Your task to perform on an android device: Open Reddit.com Image 0: 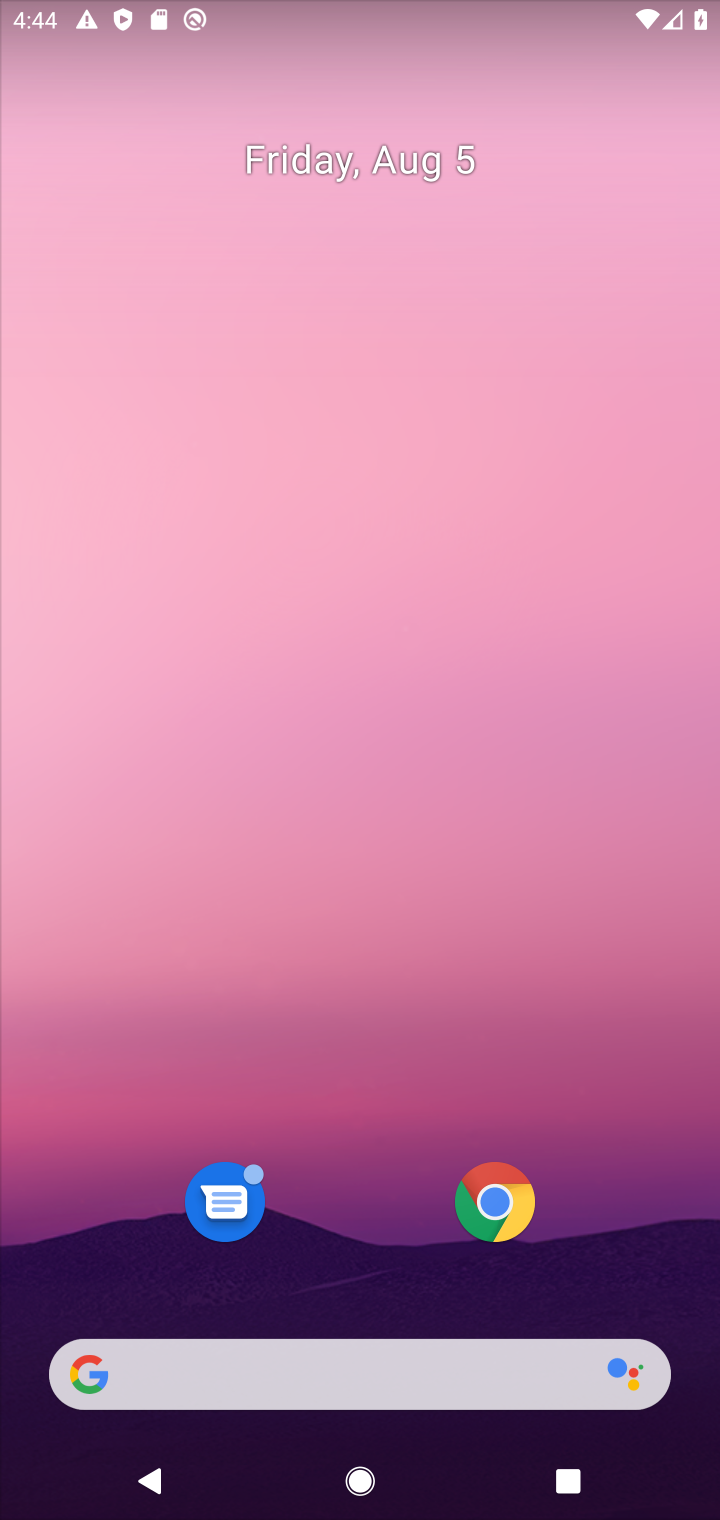
Step 0: click (501, 1203)
Your task to perform on an android device: Open Reddit.com Image 1: 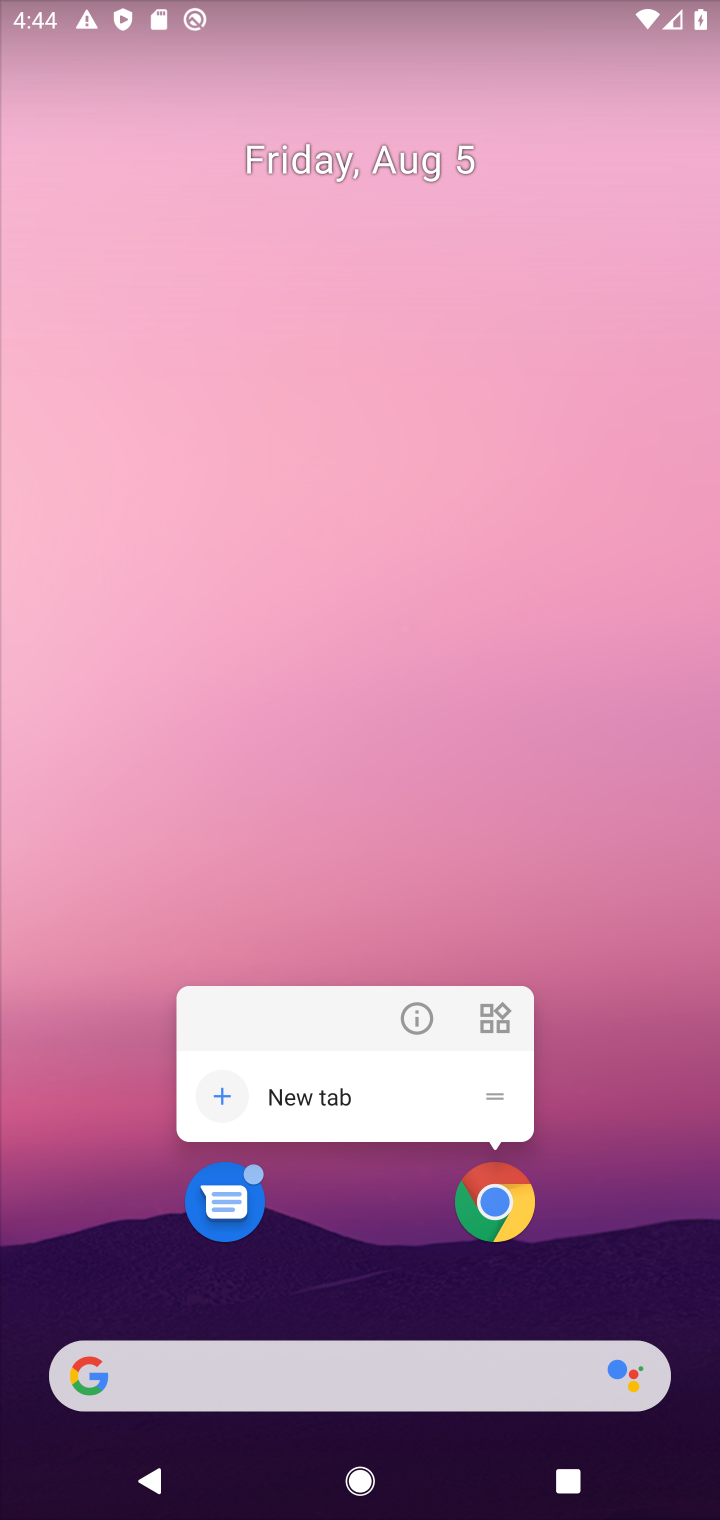
Step 1: click (501, 1203)
Your task to perform on an android device: Open Reddit.com Image 2: 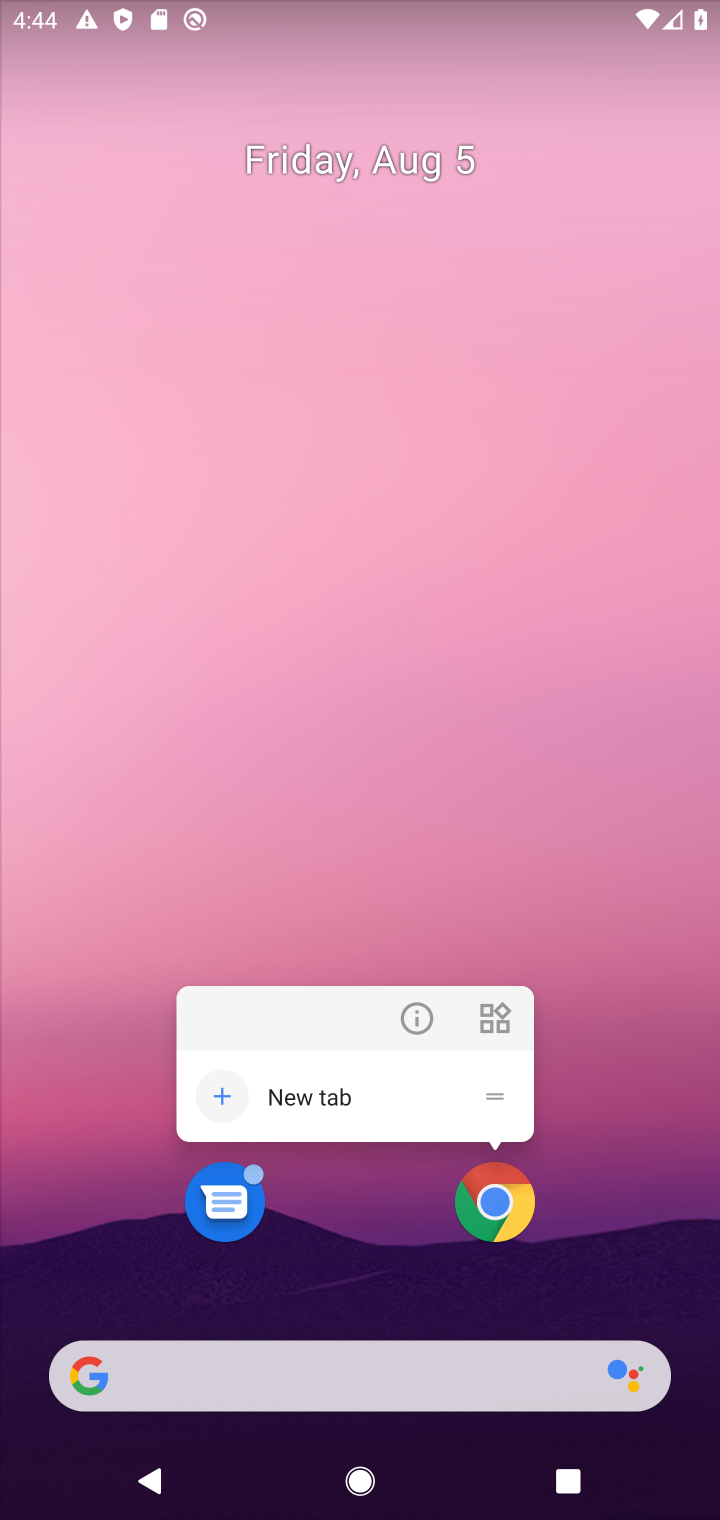
Step 2: click (501, 1203)
Your task to perform on an android device: Open Reddit.com Image 3: 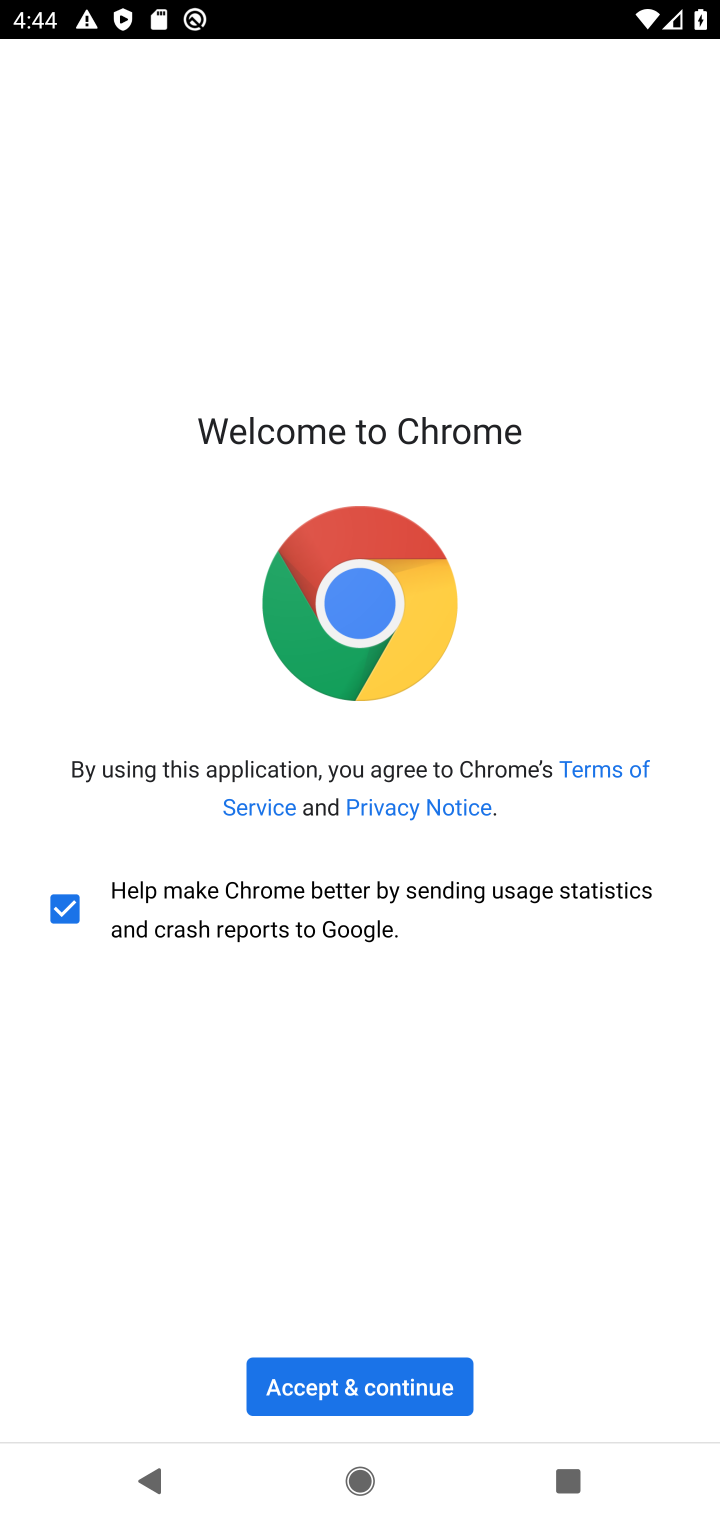
Step 3: click (387, 1387)
Your task to perform on an android device: Open Reddit.com Image 4: 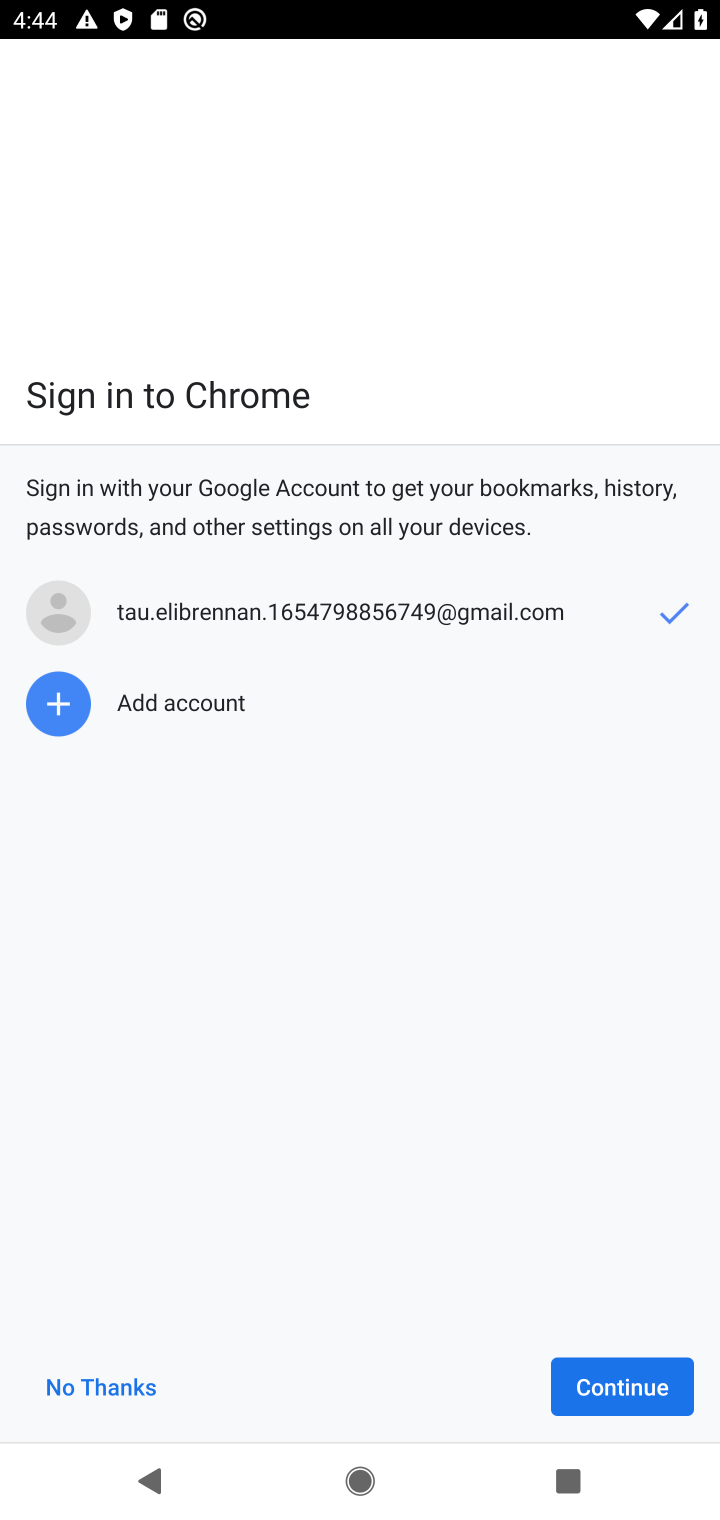
Step 4: click (591, 1378)
Your task to perform on an android device: Open Reddit.com Image 5: 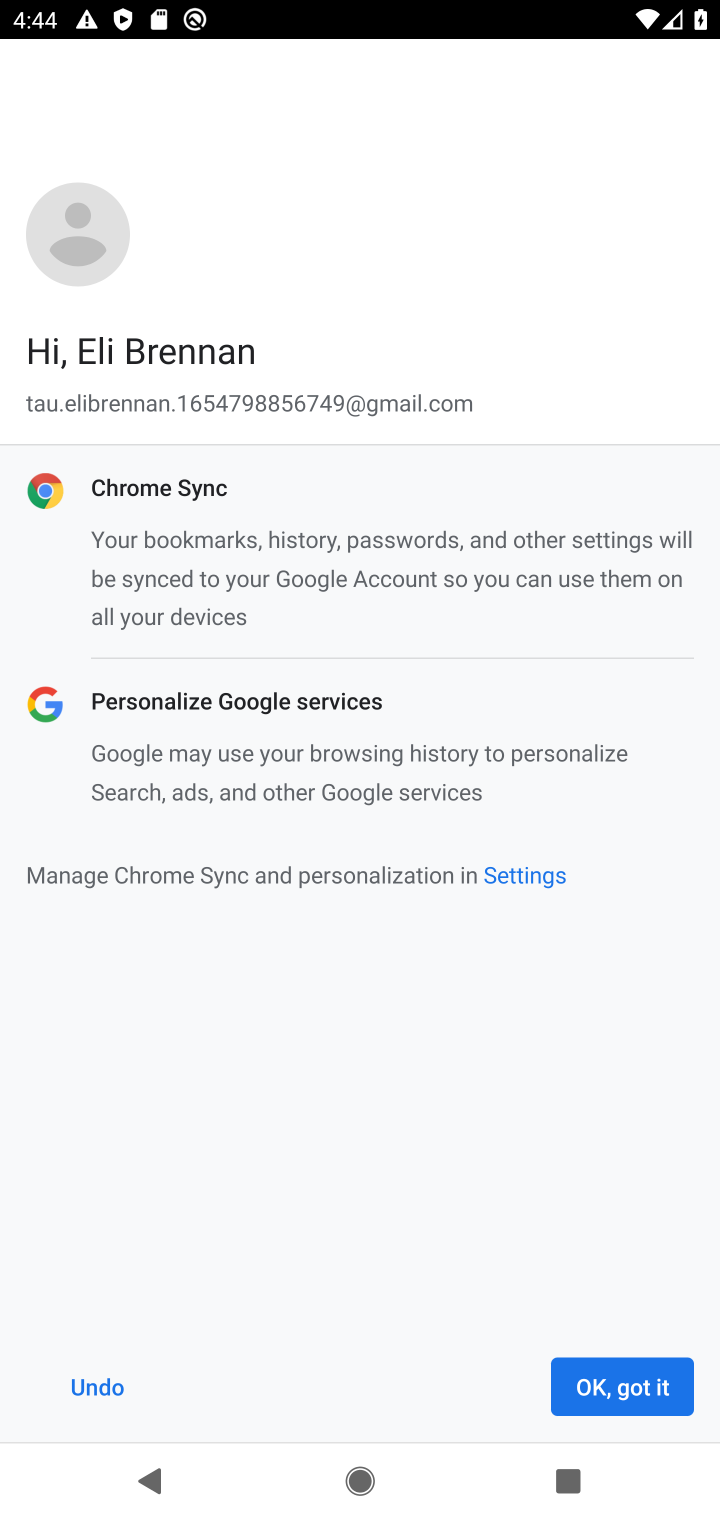
Step 5: click (644, 1378)
Your task to perform on an android device: Open Reddit.com Image 6: 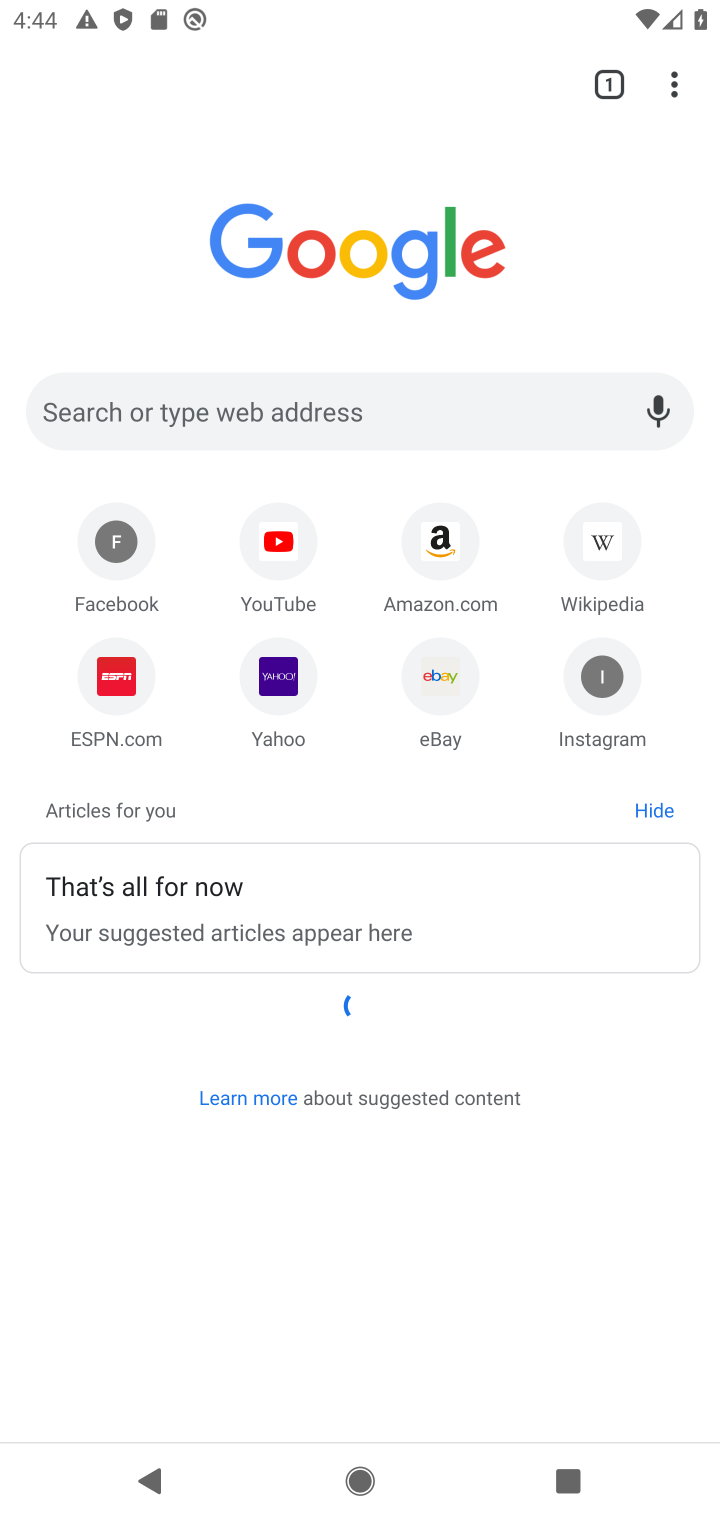
Step 6: click (385, 385)
Your task to perform on an android device: Open Reddit.com Image 7: 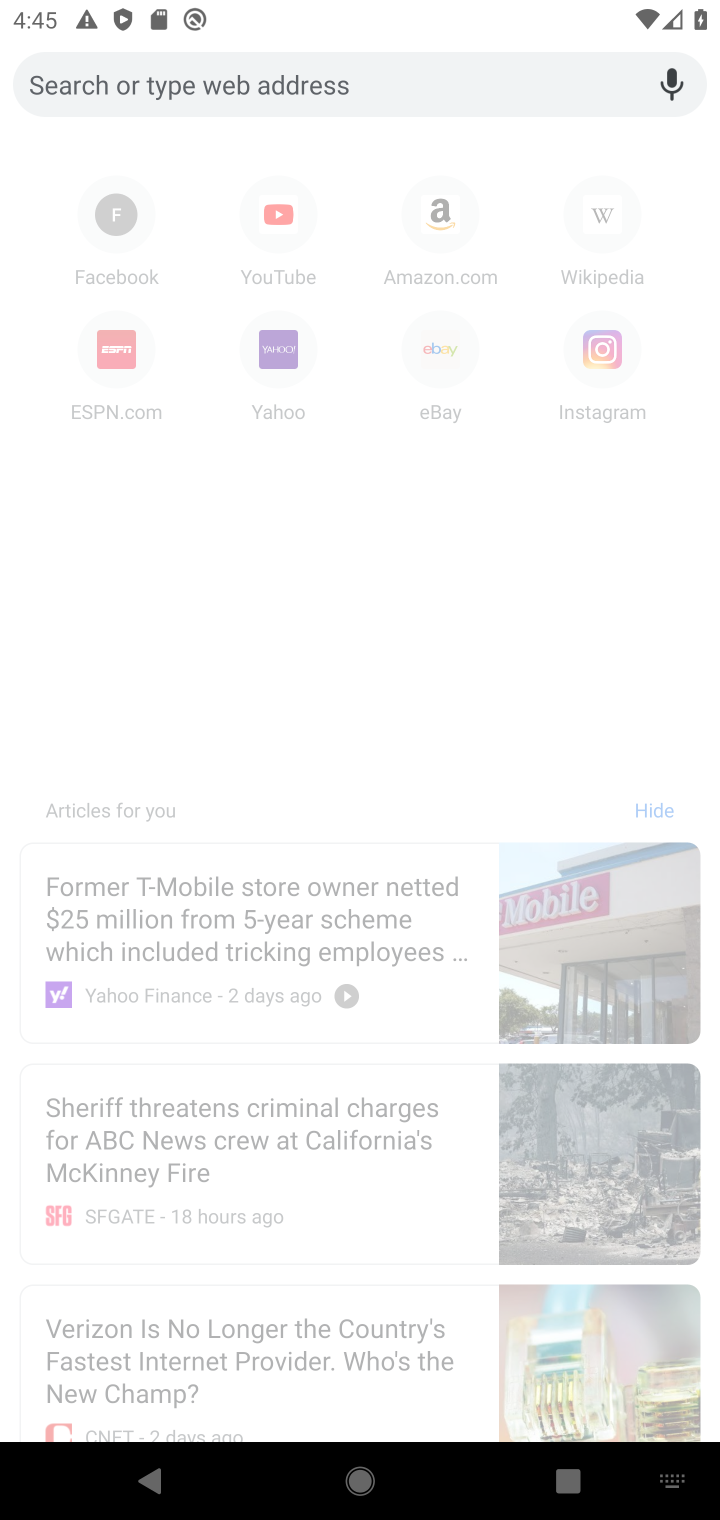
Step 7: type "reddit.com"
Your task to perform on an android device: Open Reddit.com Image 8: 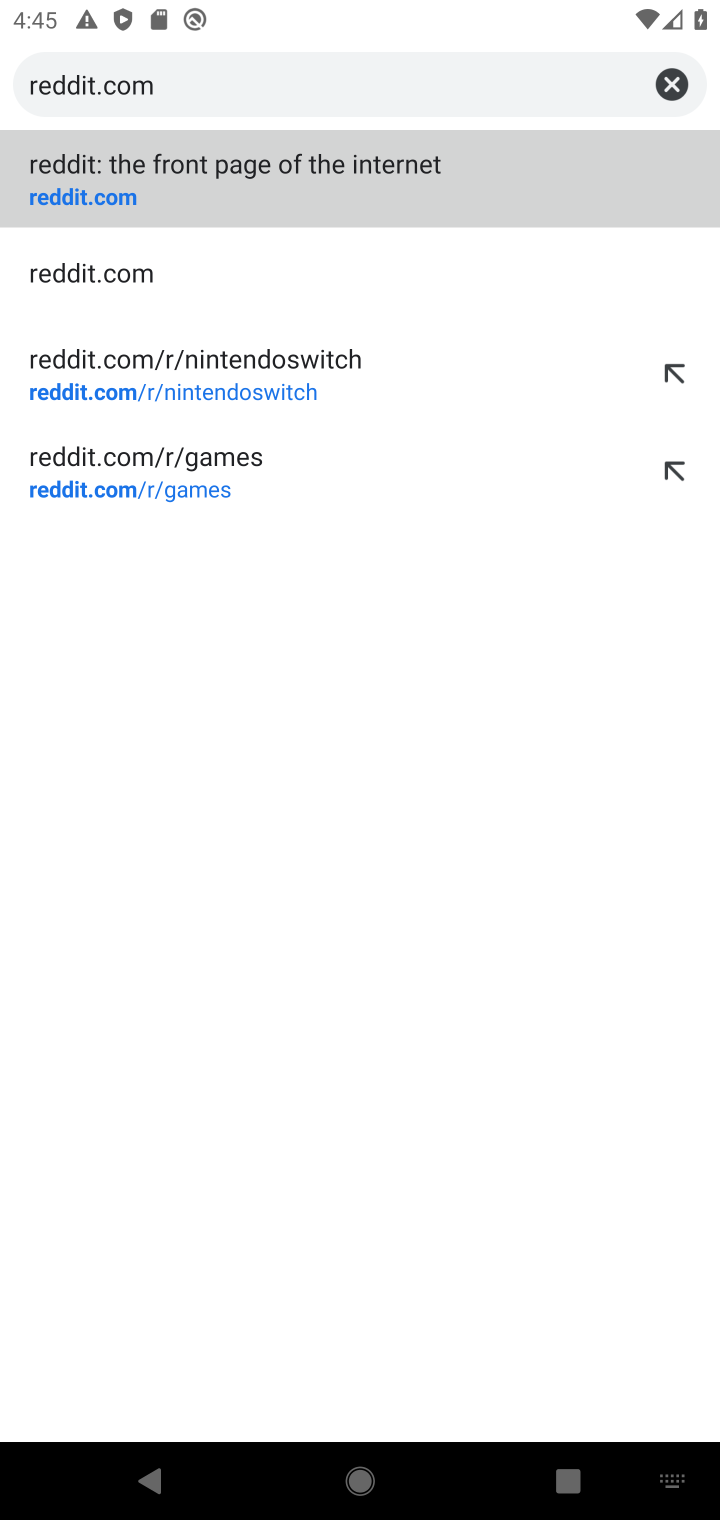
Step 8: click (279, 173)
Your task to perform on an android device: Open Reddit.com Image 9: 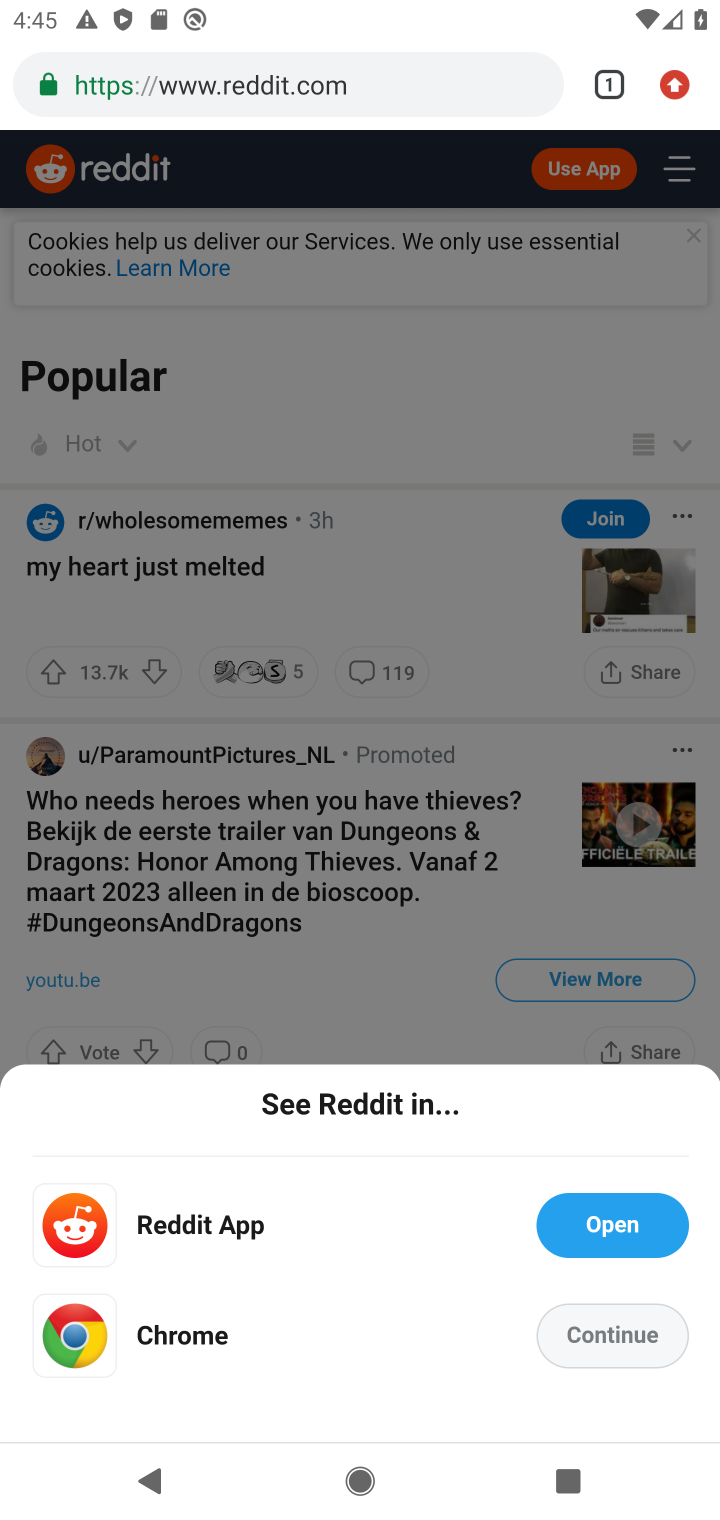
Step 9: task complete